Your task to perform on an android device: Go to accessibility settings Image 0: 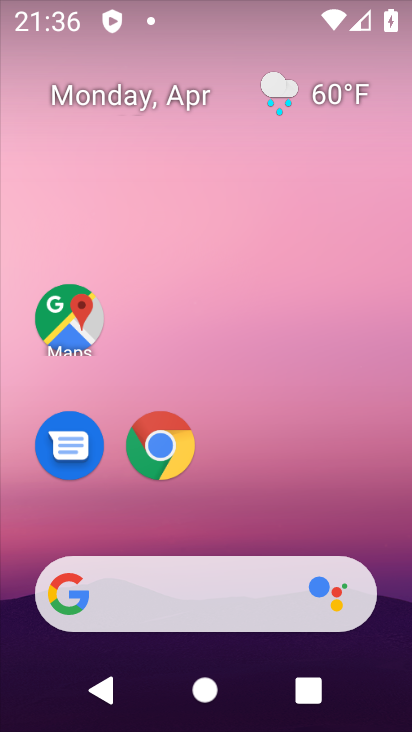
Step 0: drag from (323, 483) to (357, 44)
Your task to perform on an android device: Go to accessibility settings Image 1: 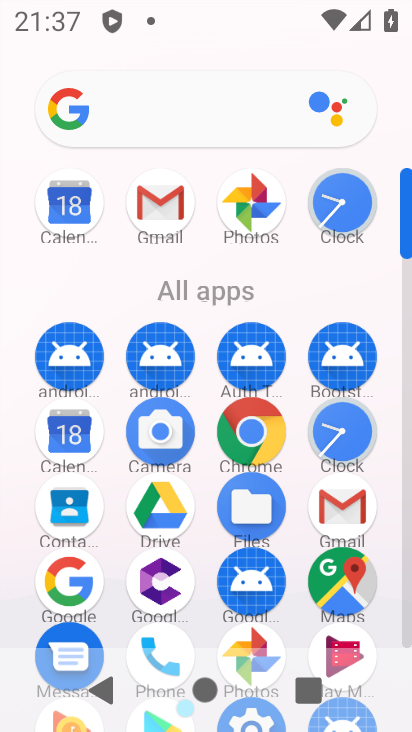
Step 1: drag from (193, 494) to (208, 130)
Your task to perform on an android device: Go to accessibility settings Image 2: 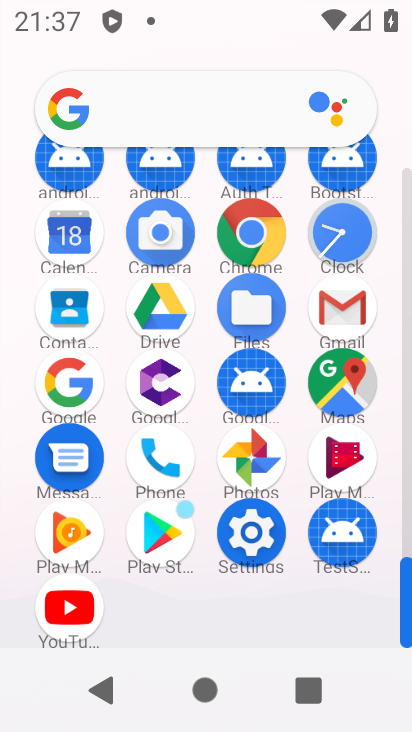
Step 2: click (248, 525)
Your task to perform on an android device: Go to accessibility settings Image 3: 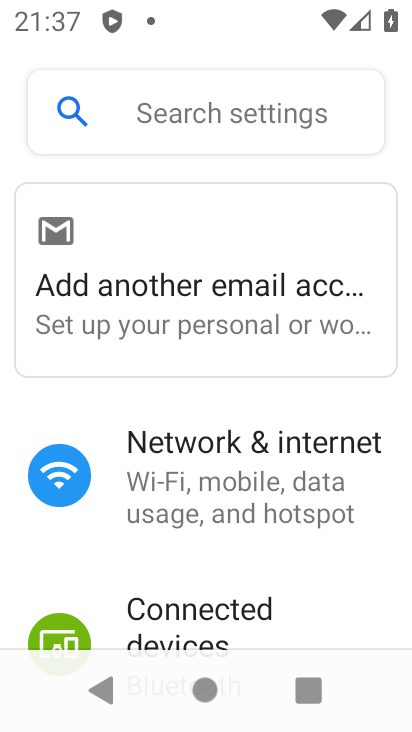
Step 3: drag from (241, 576) to (249, 277)
Your task to perform on an android device: Go to accessibility settings Image 4: 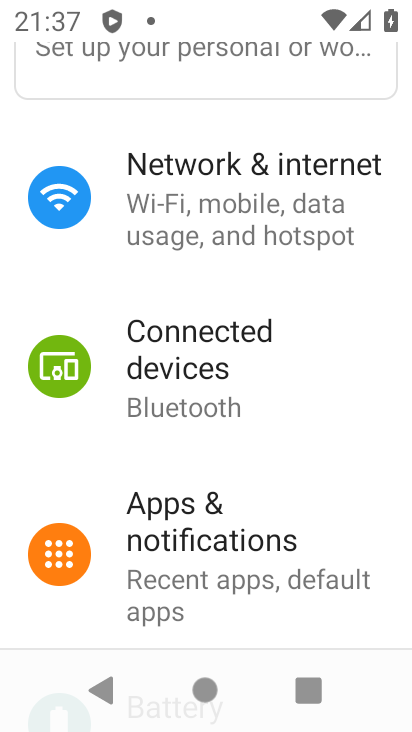
Step 4: drag from (239, 491) to (282, 148)
Your task to perform on an android device: Go to accessibility settings Image 5: 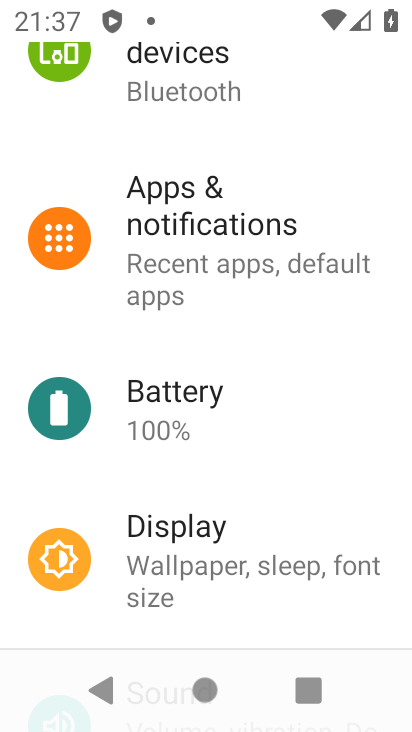
Step 5: drag from (243, 529) to (305, 169)
Your task to perform on an android device: Go to accessibility settings Image 6: 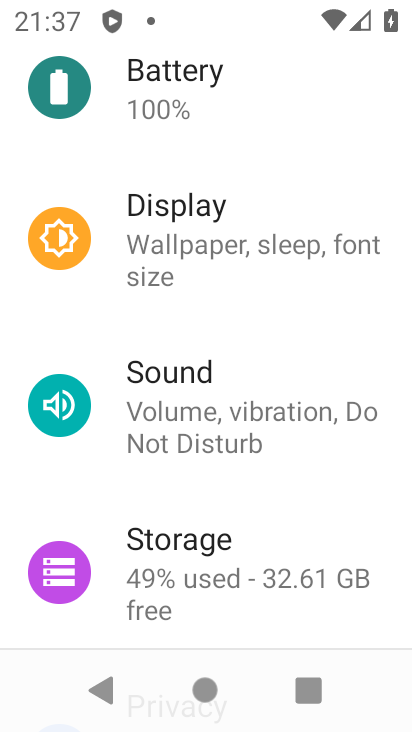
Step 6: drag from (245, 519) to (298, 171)
Your task to perform on an android device: Go to accessibility settings Image 7: 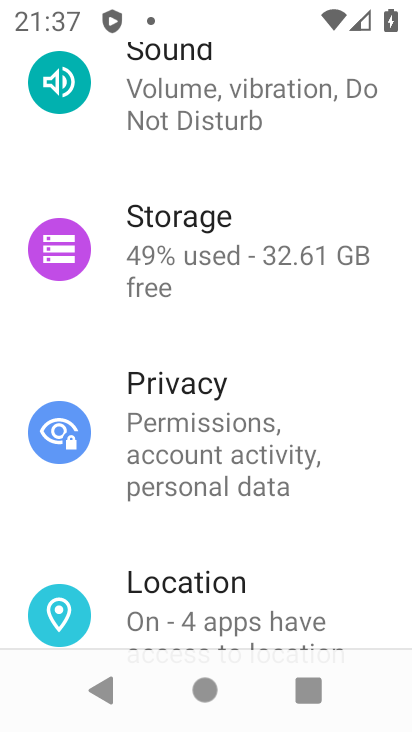
Step 7: drag from (242, 537) to (341, 206)
Your task to perform on an android device: Go to accessibility settings Image 8: 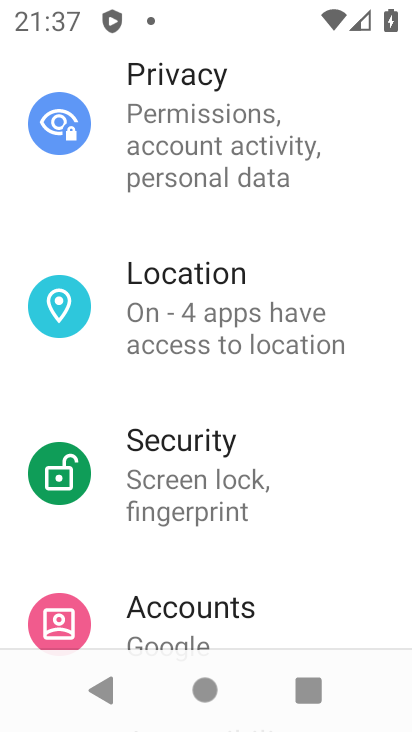
Step 8: drag from (275, 521) to (304, 144)
Your task to perform on an android device: Go to accessibility settings Image 9: 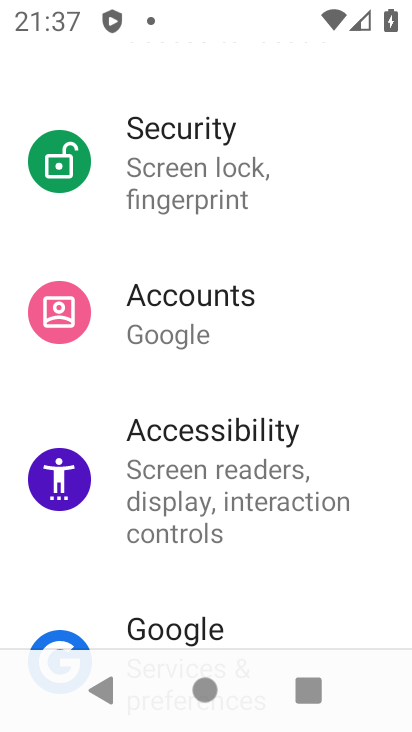
Step 9: click (239, 453)
Your task to perform on an android device: Go to accessibility settings Image 10: 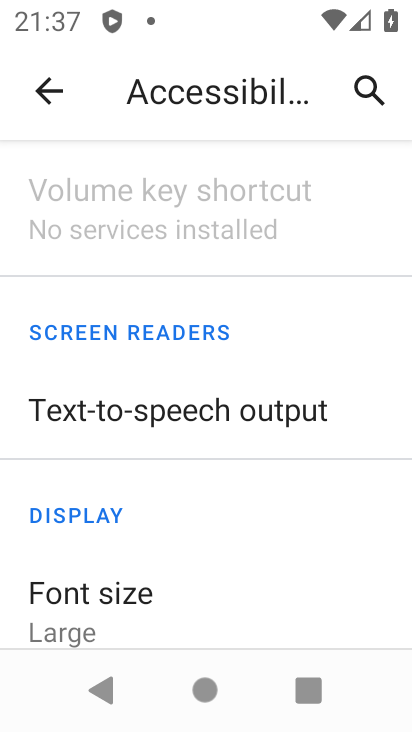
Step 10: task complete